Your task to perform on an android device: Go to accessibility settings Image 0: 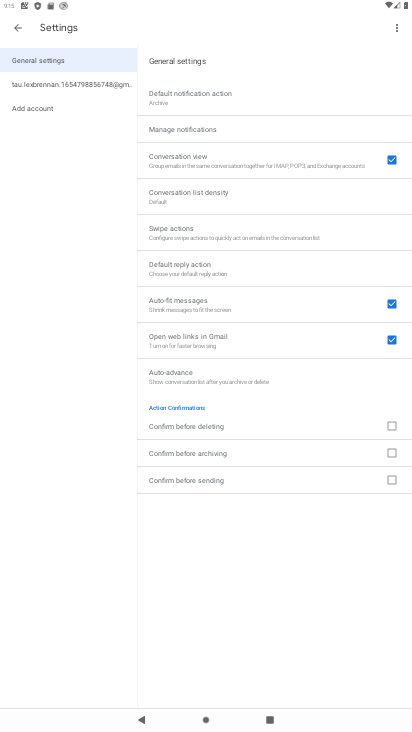
Step 0: task complete